Your task to perform on an android device: Go to calendar. Show me events next week Image 0: 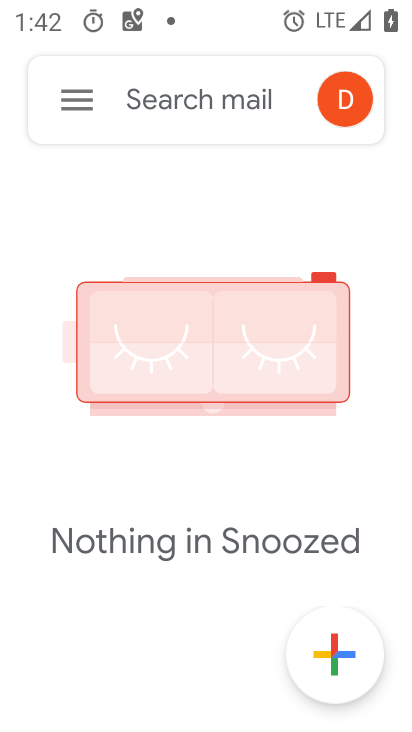
Step 0: press home button
Your task to perform on an android device: Go to calendar. Show me events next week Image 1: 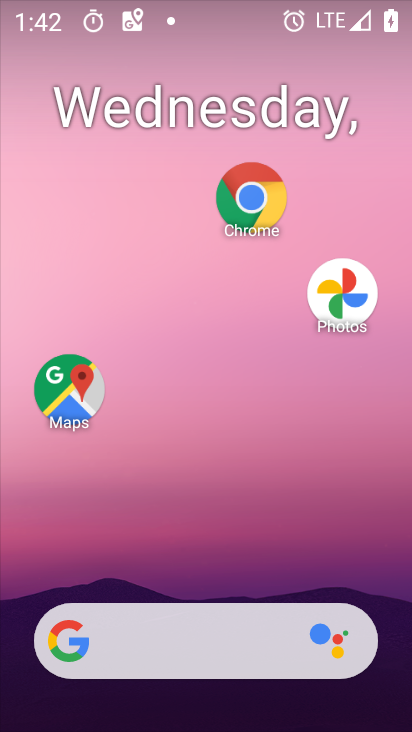
Step 1: drag from (261, 675) to (261, 236)
Your task to perform on an android device: Go to calendar. Show me events next week Image 2: 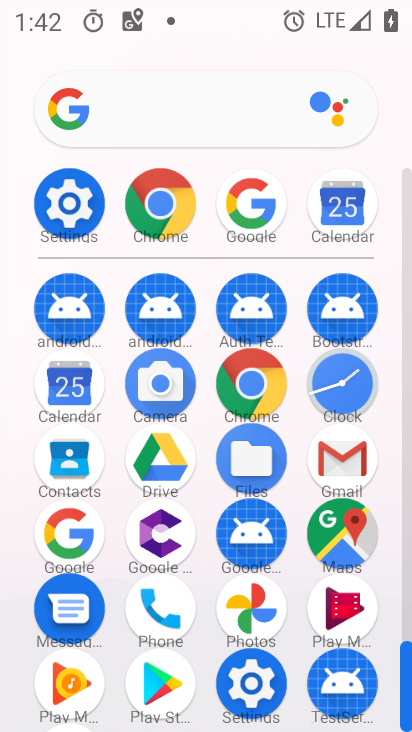
Step 2: click (79, 401)
Your task to perform on an android device: Go to calendar. Show me events next week Image 3: 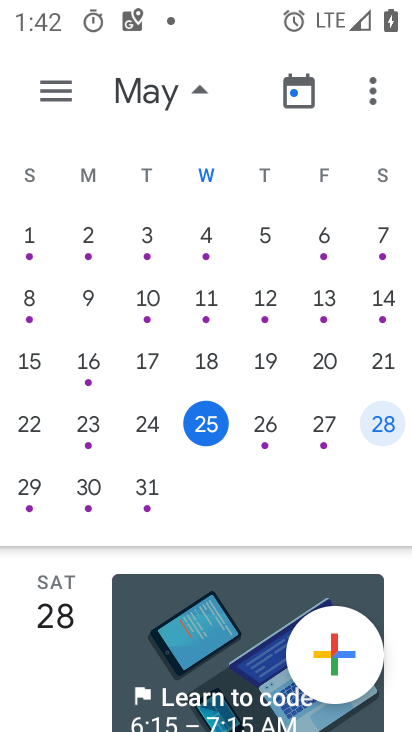
Step 3: click (35, 503)
Your task to perform on an android device: Go to calendar. Show me events next week Image 4: 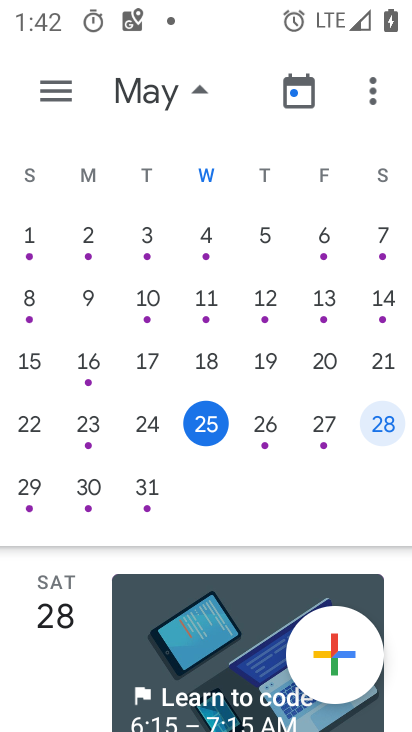
Step 4: click (47, 513)
Your task to perform on an android device: Go to calendar. Show me events next week Image 5: 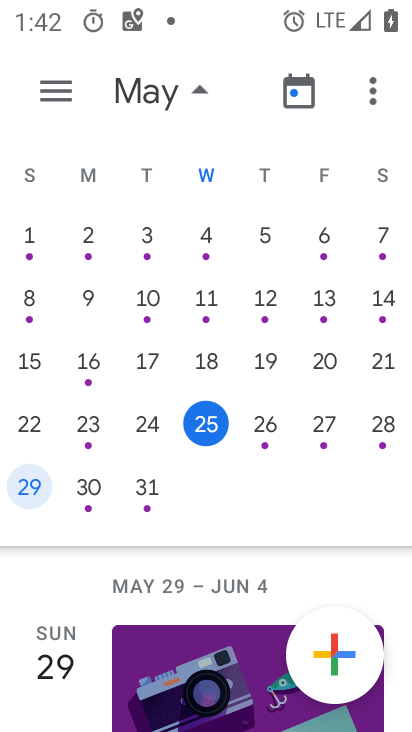
Step 5: task complete